Your task to perform on an android device: turn off javascript in the chrome app Image 0: 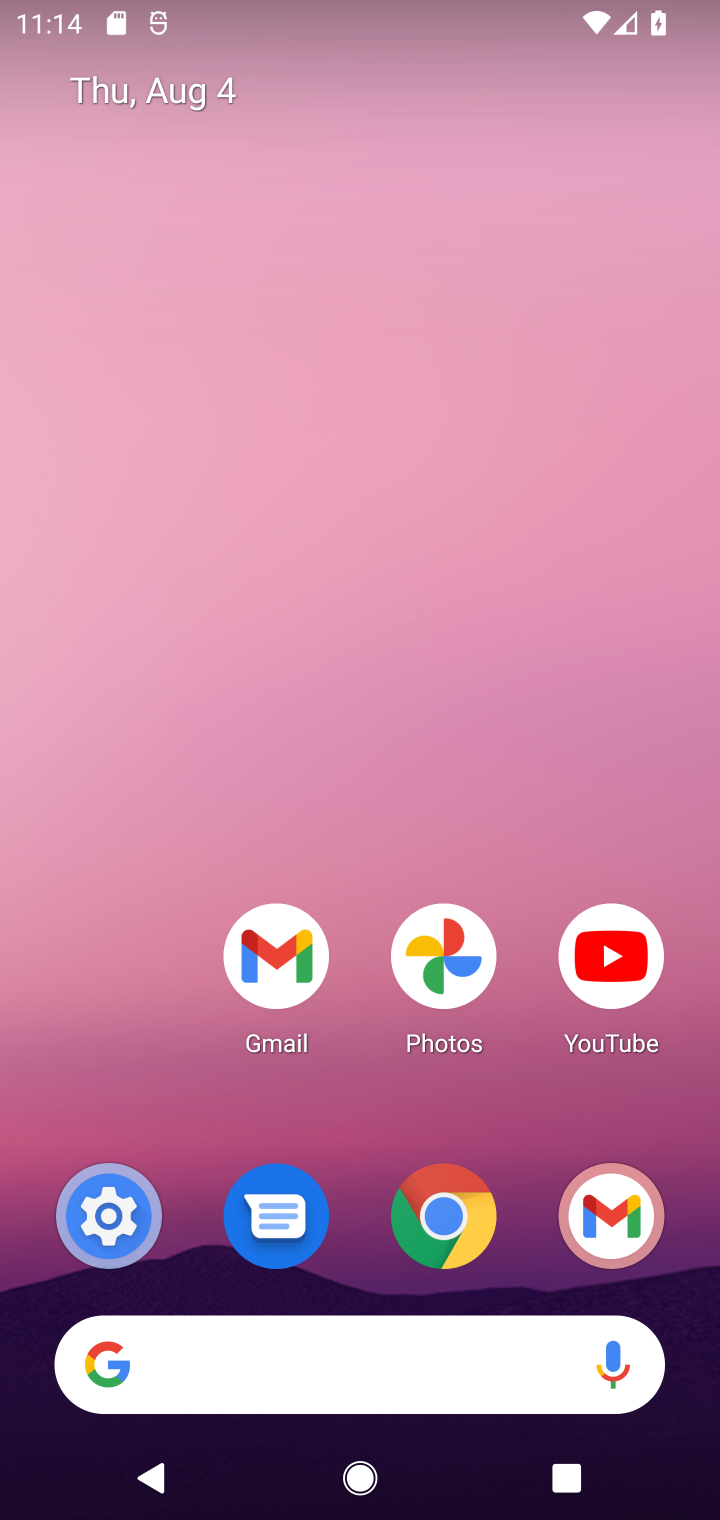
Step 0: click (464, 1208)
Your task to perform on an android device: turn off javascript in the chrome app Image 1: 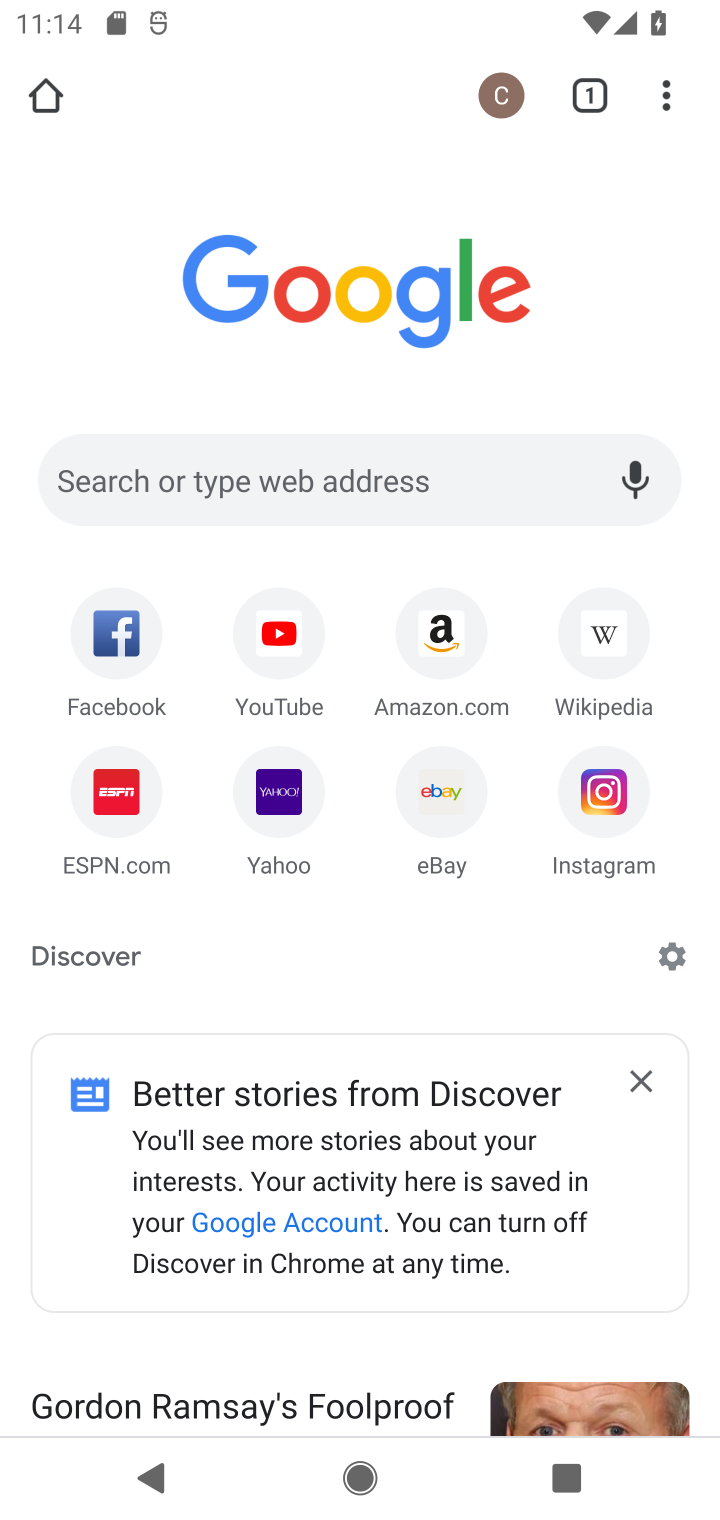
Step 1: click (659, 99)
Your task to perform on an android device: turn off javascript in the chrome app Image 2: 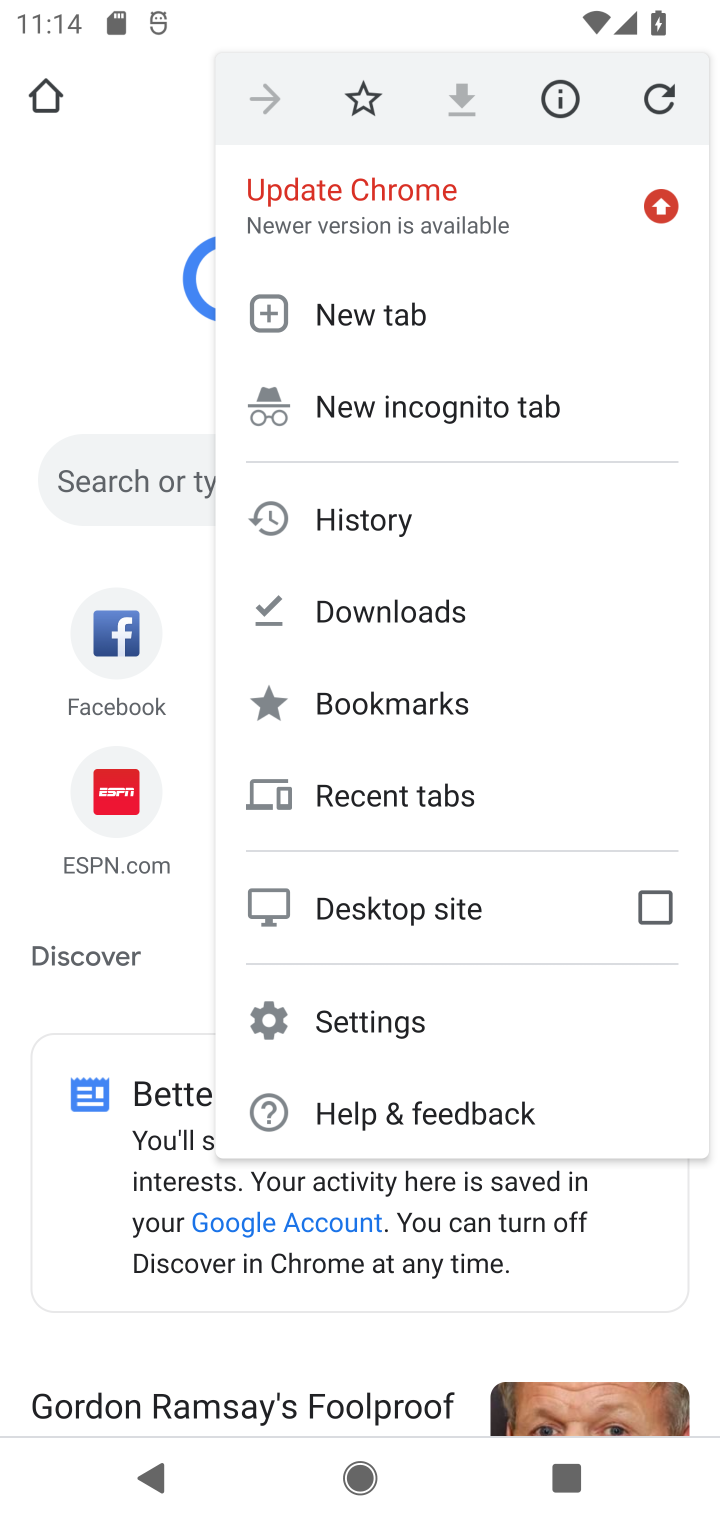
Step 2: click (407, 1018)
Your task to perform on an android device: turn off javascript in the chrome app Image 3: 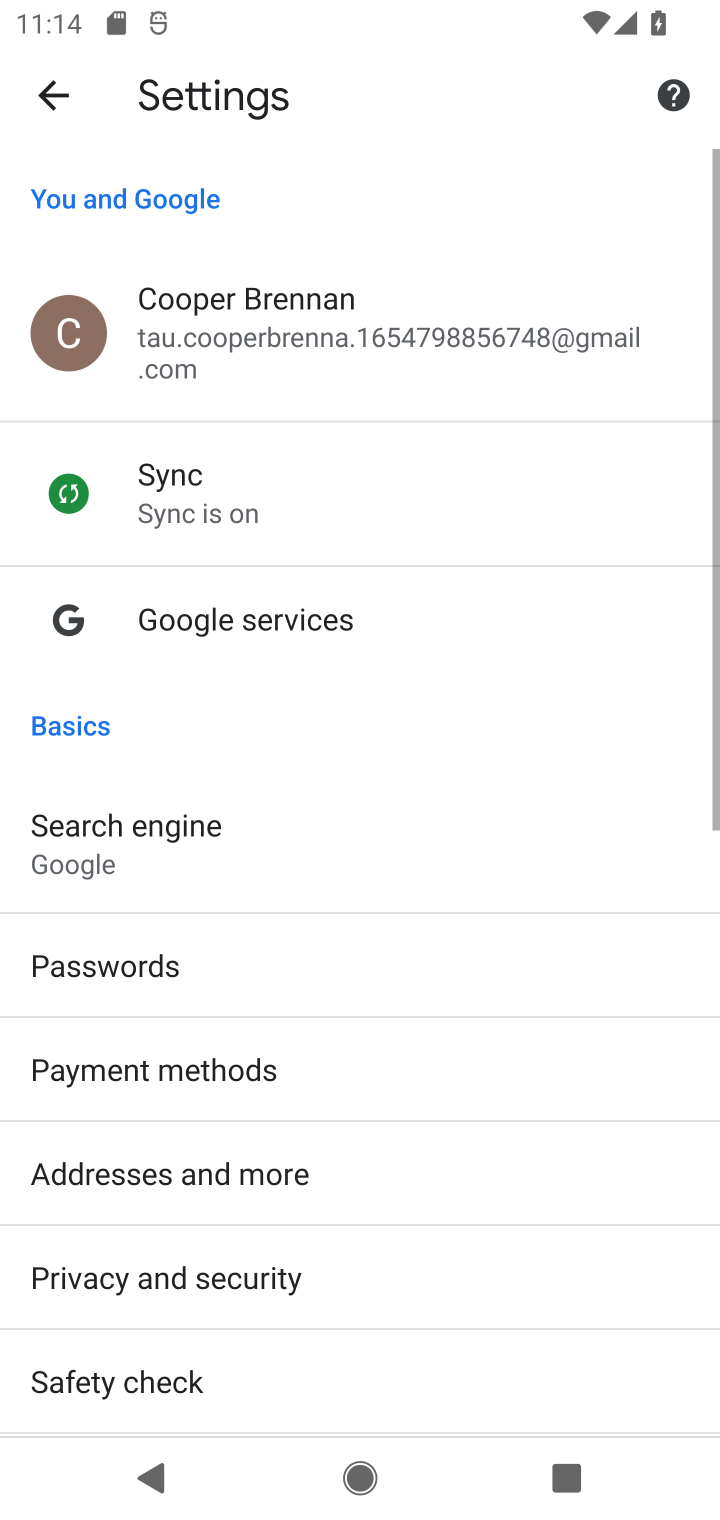
Step 3: drag from (417, 1294) to (394, 277)
Your task to perform on an android device: turn off javascript in the chrome app Image 4: 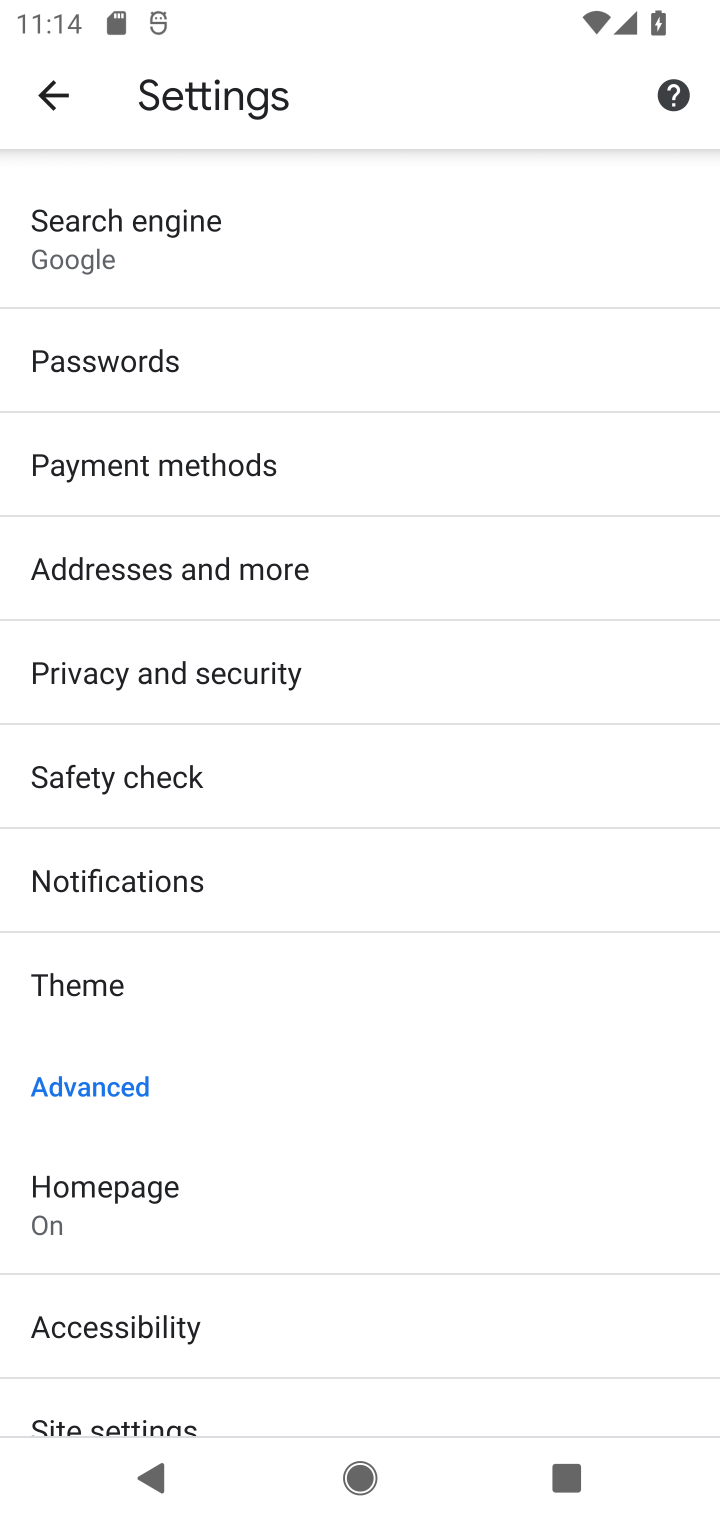
Step 4: click (315, 1408)
Your task to perform on an android device: turn off javascript in the chrome app Image 5: 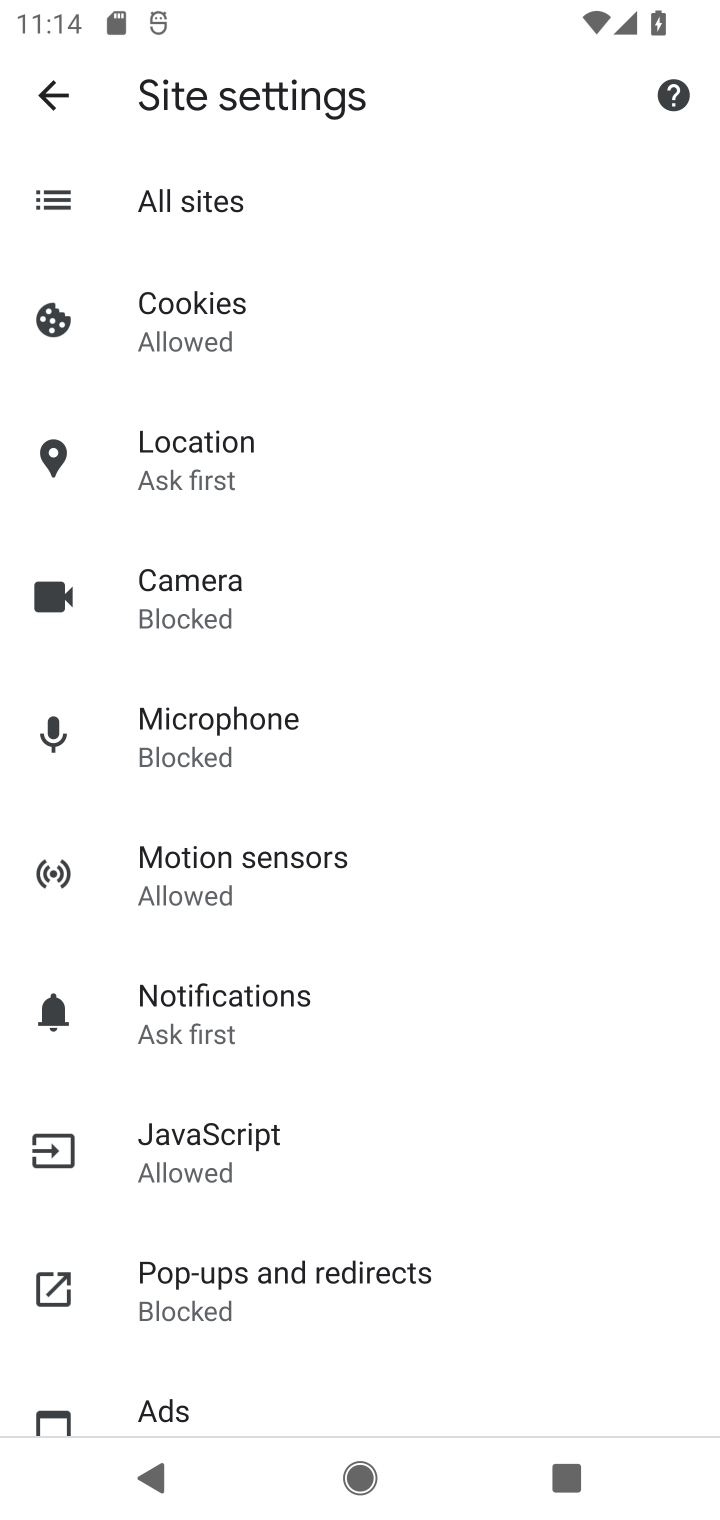
Step 5: click (271, 1156)
Your task to perform on an android device: turn off javascript in the chrome app Image 6: 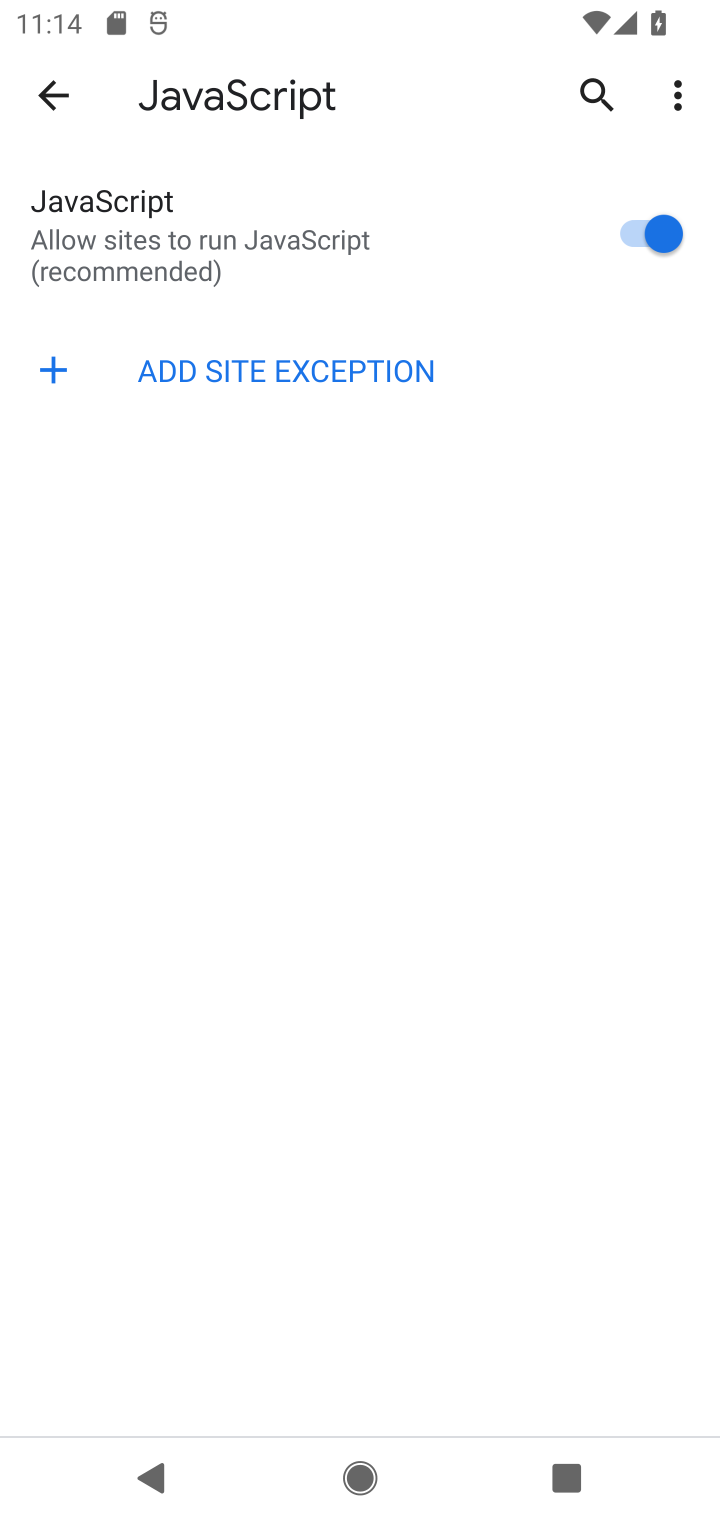
Step 6: click (663, 225)
Your task to perform on an android device: turn off javascript in the chrome app Image 7: 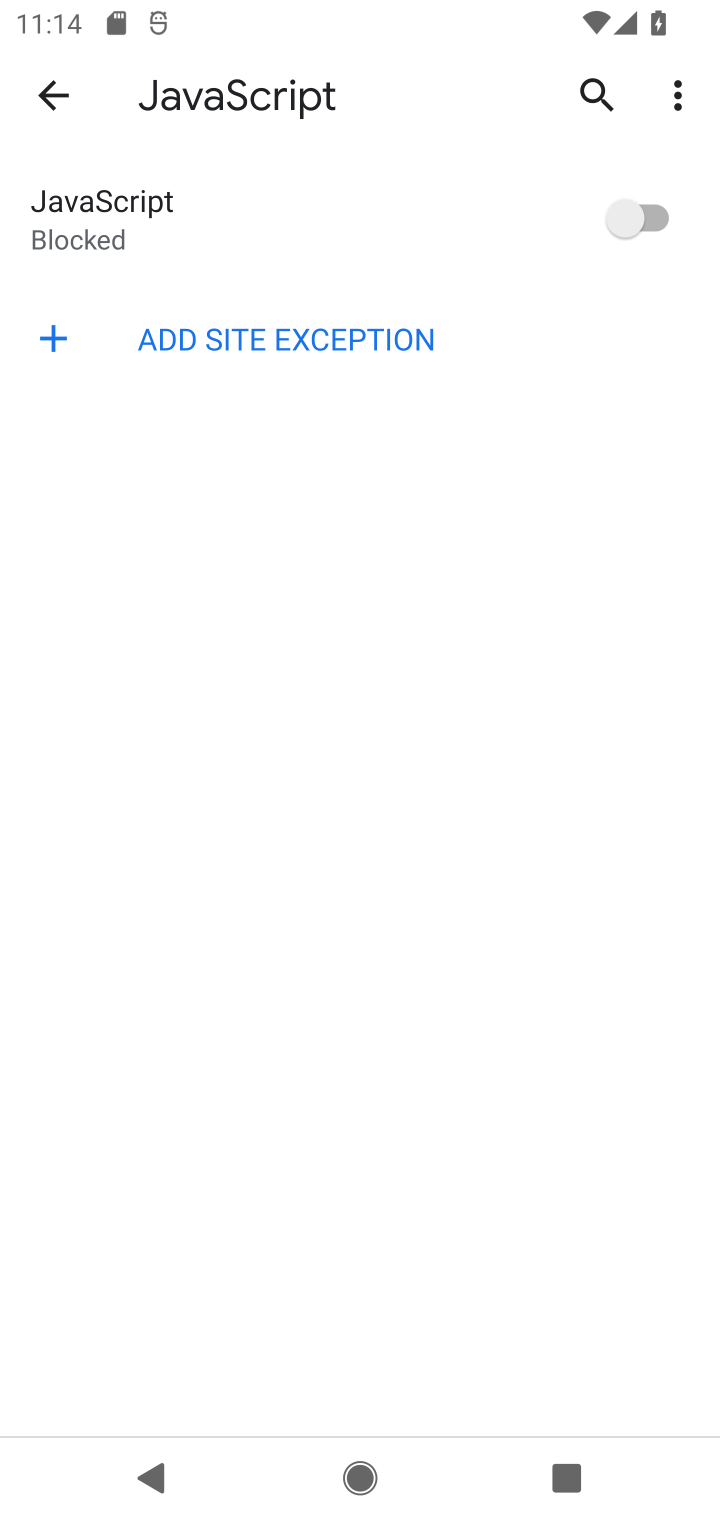
Step 7: task complete